Your task to perform on an android device: open app "DoorDash - Food Delivery" (install if not already installed) and enter user name: "Richard@outlook.com" and password: "informally" Image 0: 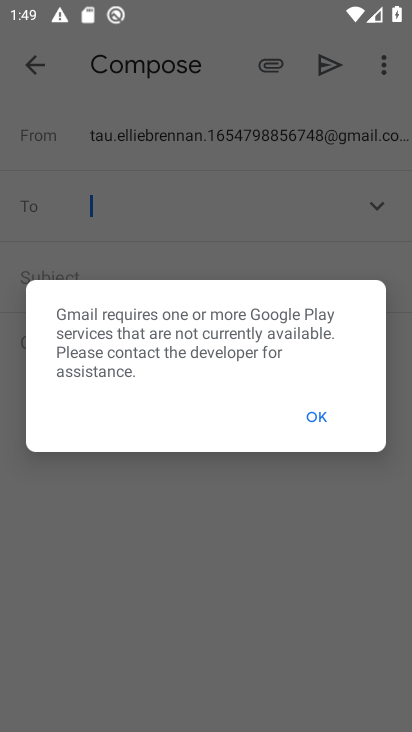
Step 0: press home button
Your task to perform on an android device: open app "DoorDash - Food Delivery" (install if not already installed) and enter user name: "Richard@outlook.com" and password: "informally" Image 1: 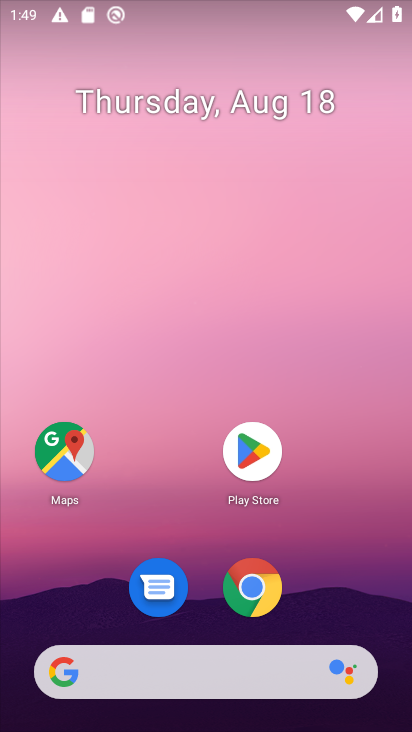
Step 1: click (253, 459)
Your task to perform on an android device: open app "DoorDash - Food Delivery" (install if not already installed) and enter user name: "Richard@outlook.com" and password: "informally" Image 2: 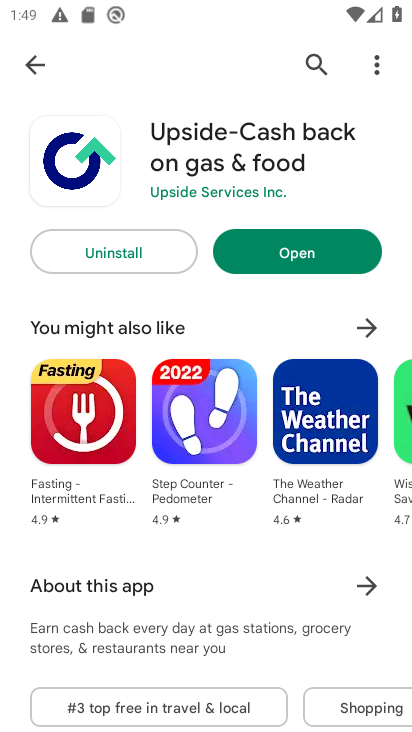
Step 2: click (311, 57)
Your task to perform on an android device: open app "DoorDash - Food Delivery" (install if not already installed) and enter user name: "Richard@outlook.com" and password: "informally" Image 3: 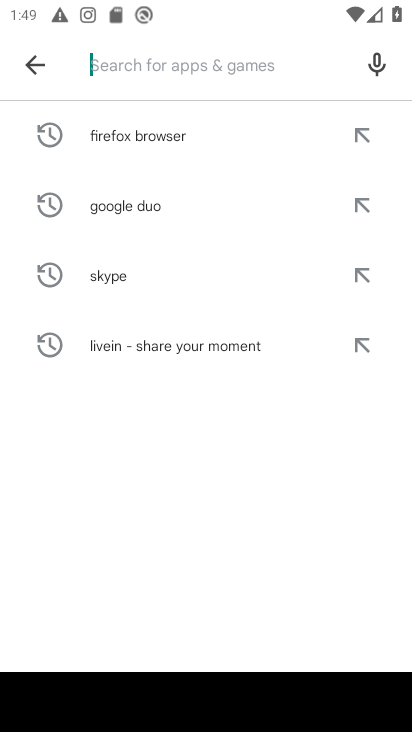
Step 3: type "DoorDash - Food Delivery"
Your task to perform on an android device: open app "DoorDash - Food Delivery" (install if not already installed) and enter user name: "Richard@outlook.com" and password: "informally" Image 4: 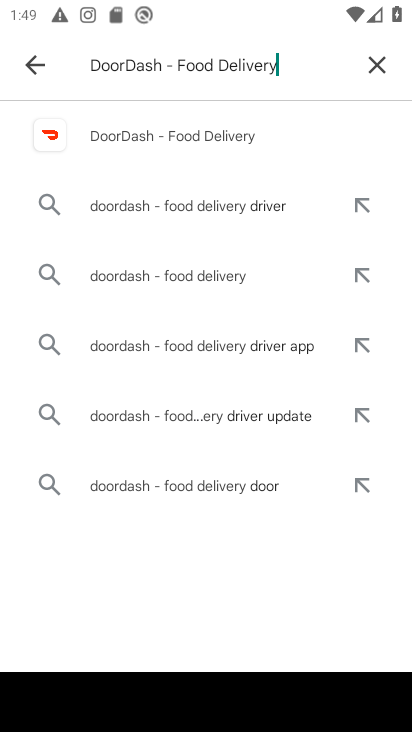
Step 4: click (136, 135)
Your task to perform on an android device: open app "DoorDash - Food Delivery" (install if not already installed) and enter user name: "Richard@outlook.com" and password: "informally" Image 5: 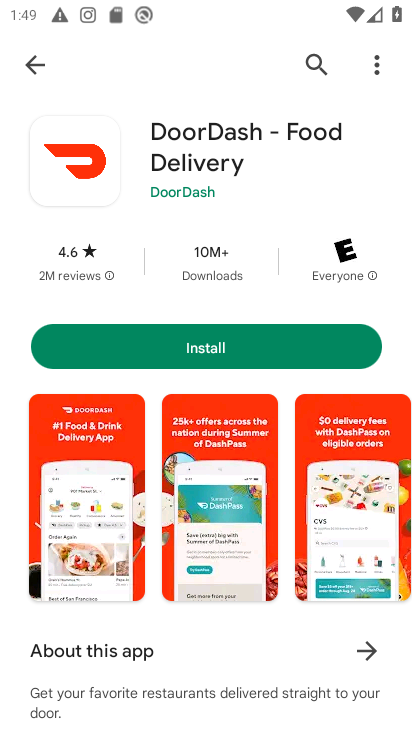
Step 5: click (207, 342)
Your task to perform on an android device: open app "DoorDash - Food Delivery" (install if not already installed) and enter user name: "Richard@outlook.com" and password: "informally" Image 6: 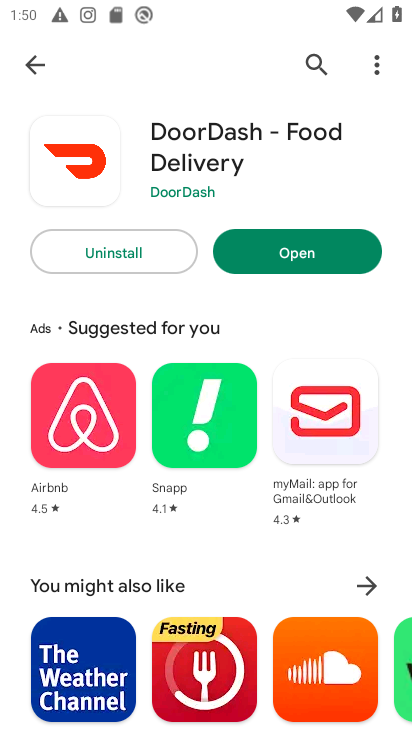
Step 6: click (294, 251)
Your task to perform on an android device: open app "DoorDash - Food Delivery" (install if not already installed) and enter user name: "Richard@outlook.com" and password: "informally" Image 7: 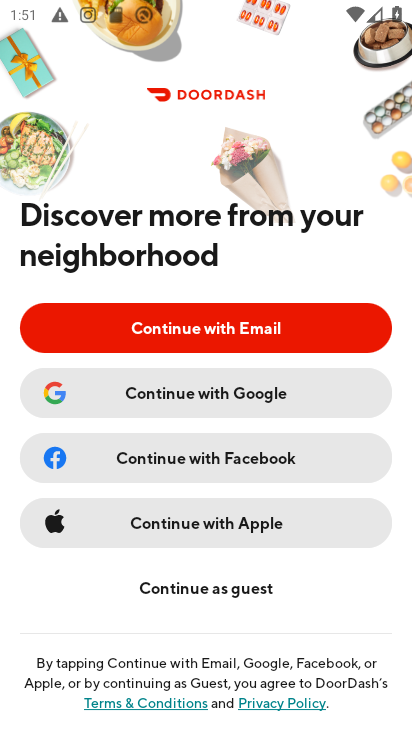
Step 7: click (223, 334)
Your task to perform on an android device: open app "DoorDash - Food Delivery" (install if not already installed) and enter user name: "Richard@outlook.com" and password: "informally" Image 8: 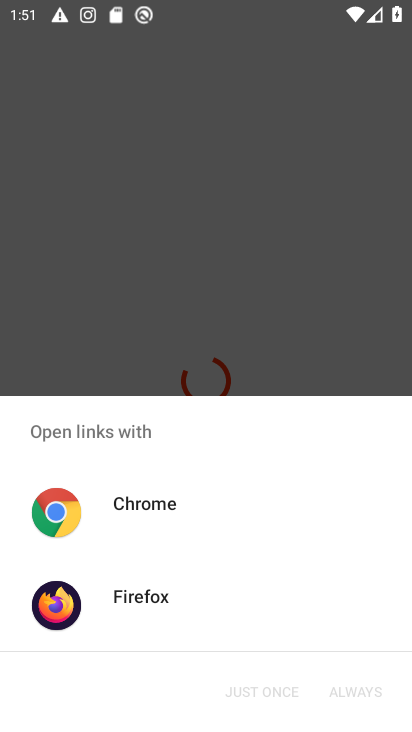
Step 8: click (271, 305)
Your task to perform on an android device: open app "DoorDash - Food Delivery" (install if not already installed) and enter user name: "Richard@outlook.com" and password: "informally" Image 9: 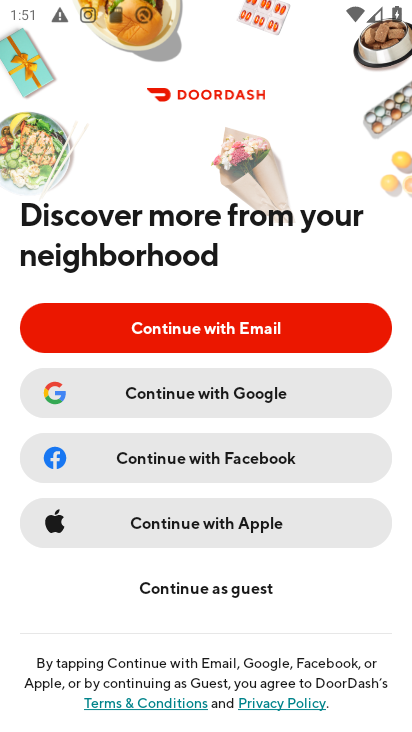
Step 9: task complete